Your task to perform on an android device: Open notification settings Image 0: 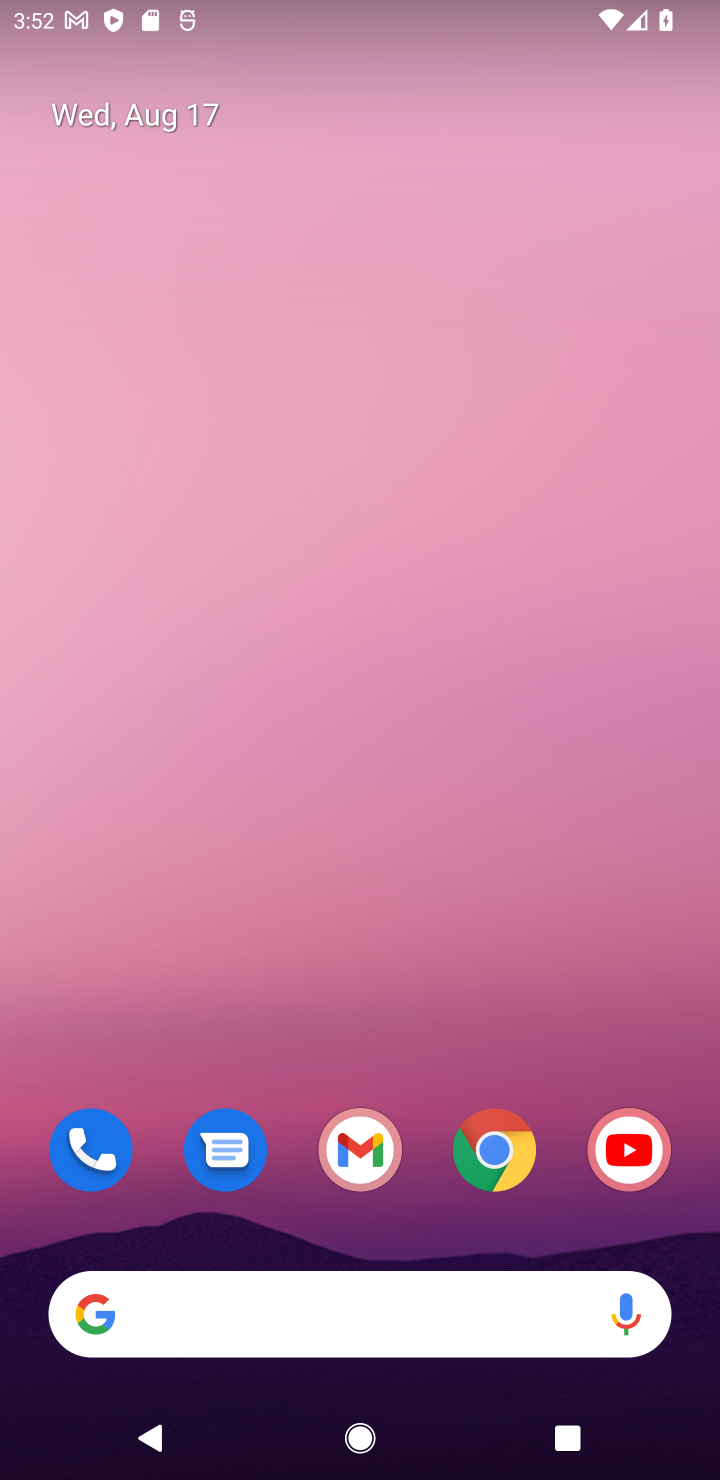
Step 0: drag from (605, 1184) to (254, 47)
Your task to perform on an android device: Open notification settings Image 1: 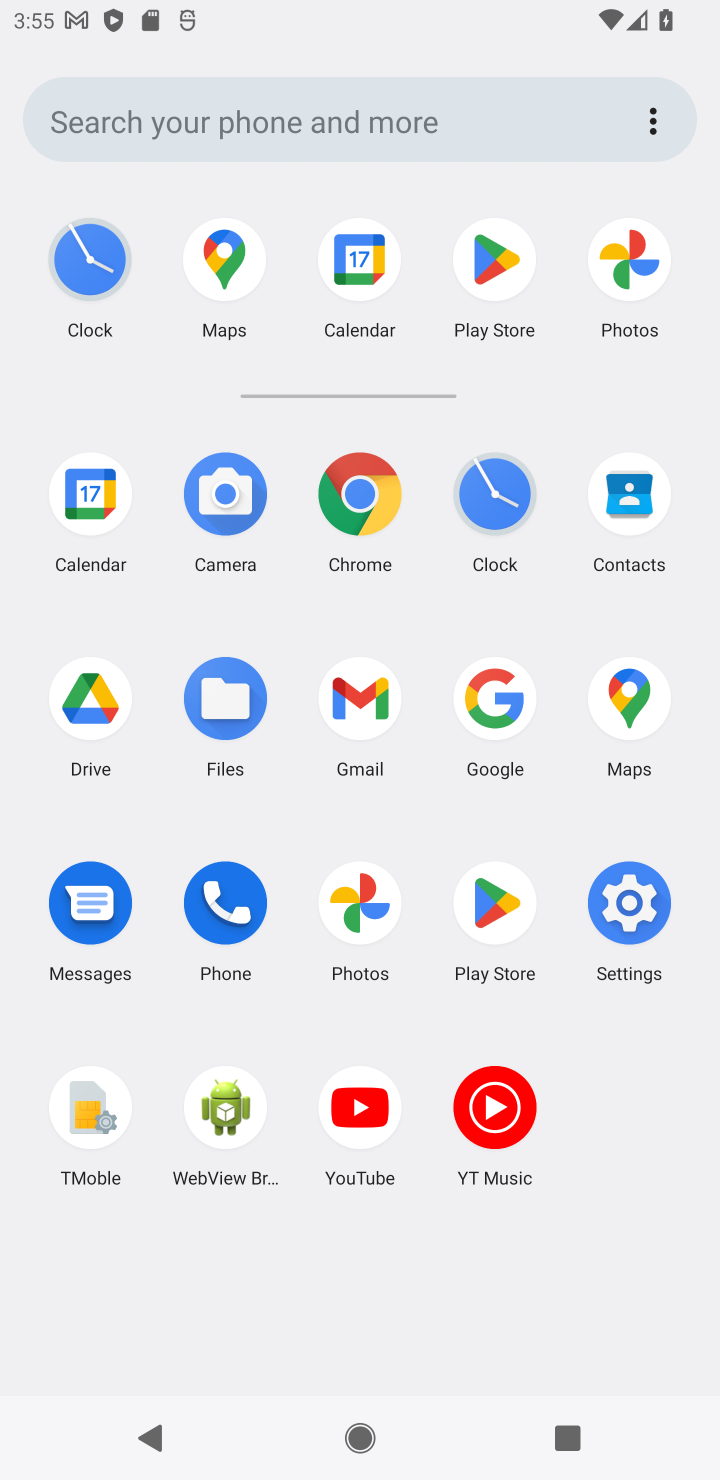
Step 1: click (615, 899)
Your task to perform on an android device: Open notification settings Image 2: 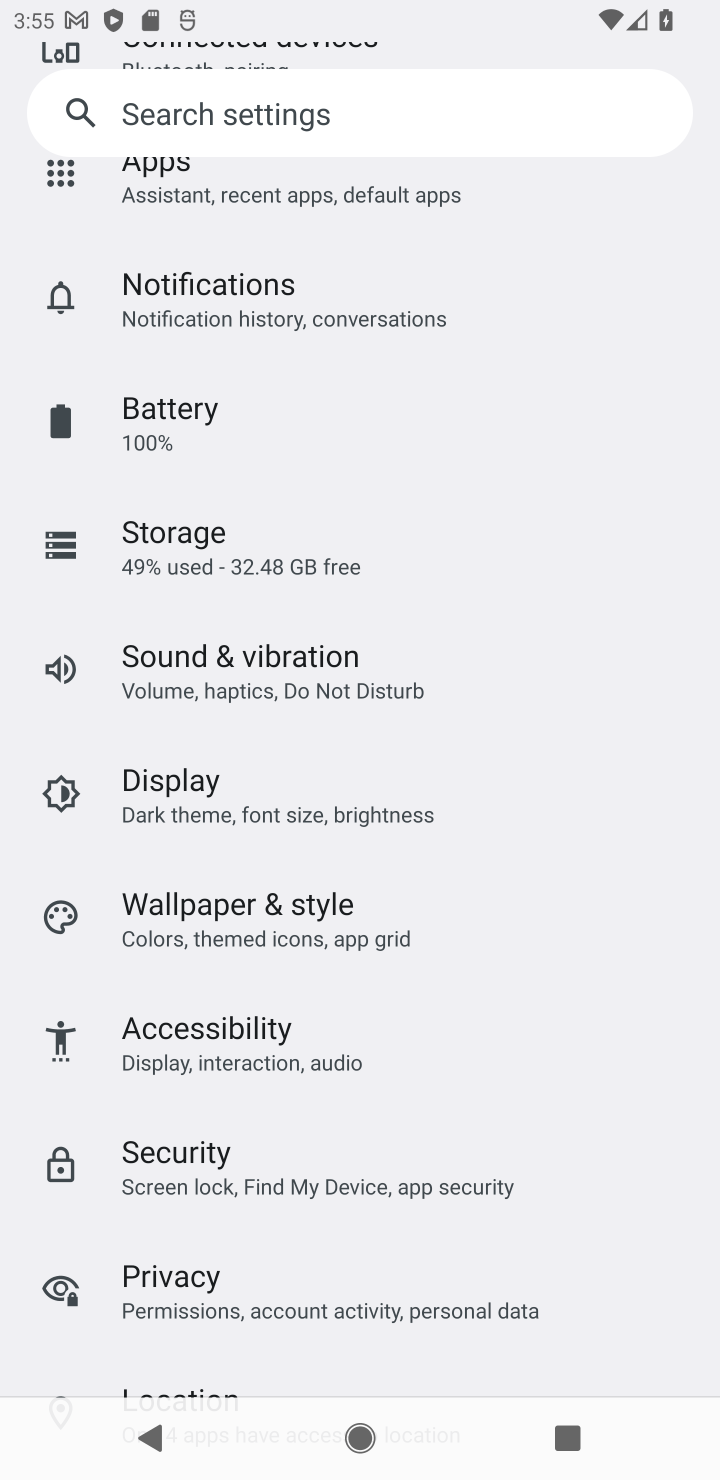
Step 2: click (235, 320)
Your task to perform on an android device: Open notification settings Image 3: 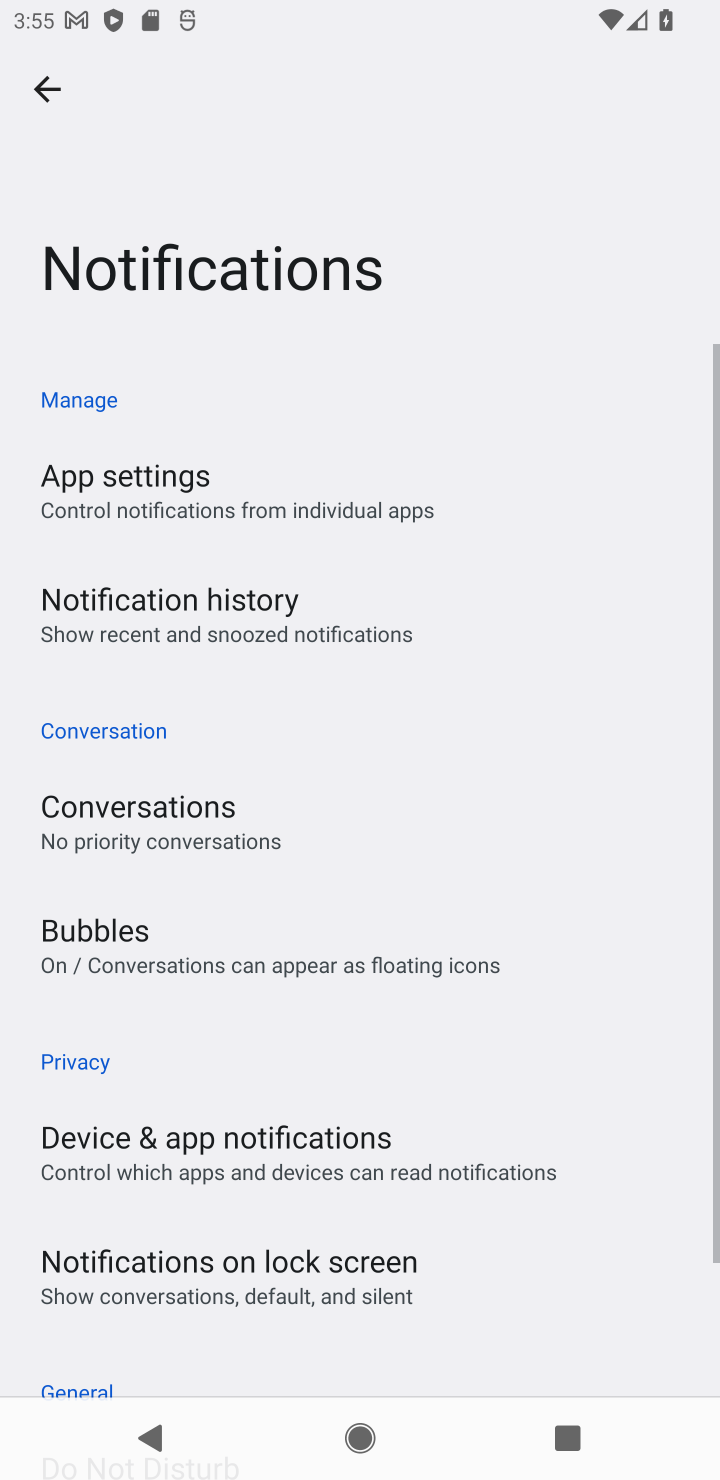
Step 3: task complete